Your task to perform on an android device: uninstall "Google News" Image 0: 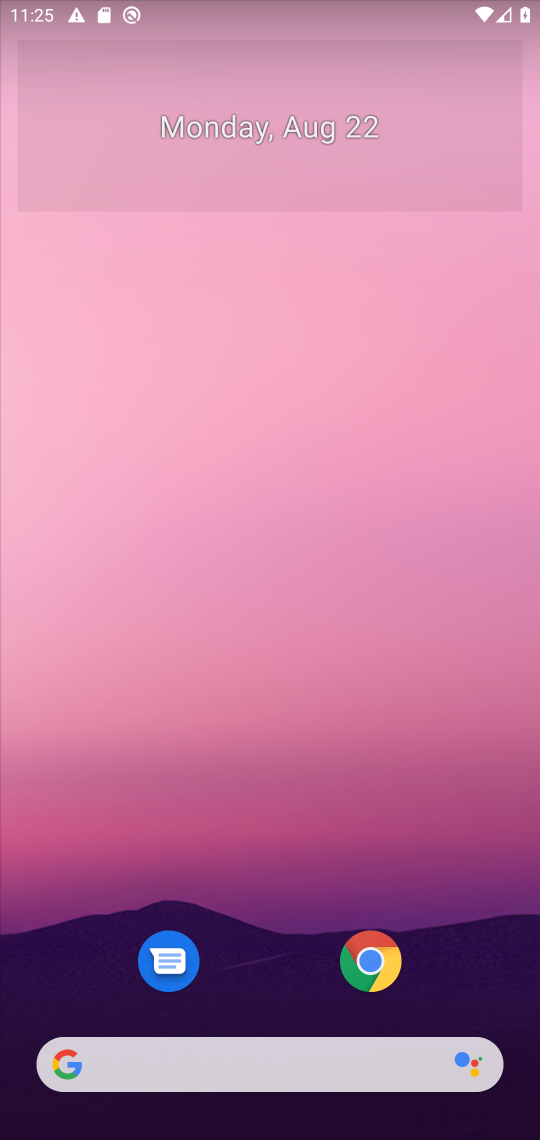
Step 0: task complete